Your task to perform on an android device: Open network settings Image 0: 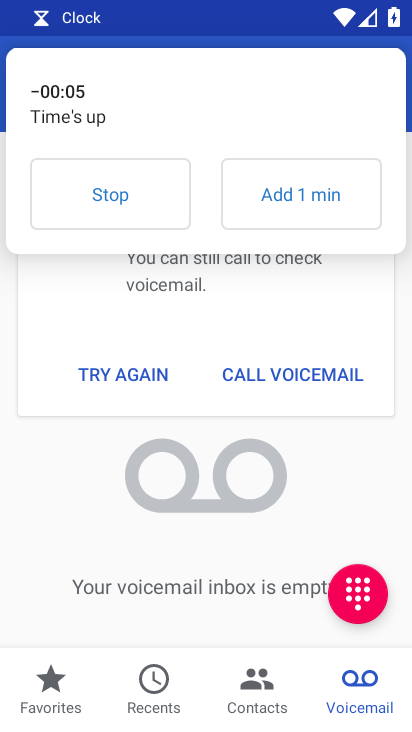
Step 0: press home button
Your task to perform on an android device: Open network settings Image 1: 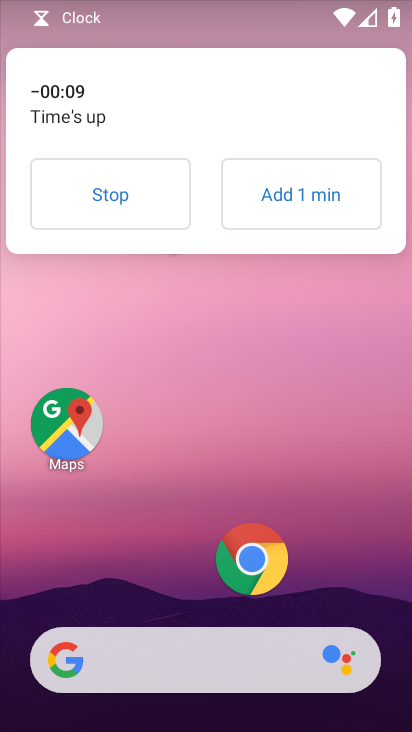
Step 1: drag from (194, 612) to (188, 159)
Your task to perform on an android device: Open network settings Image 2: 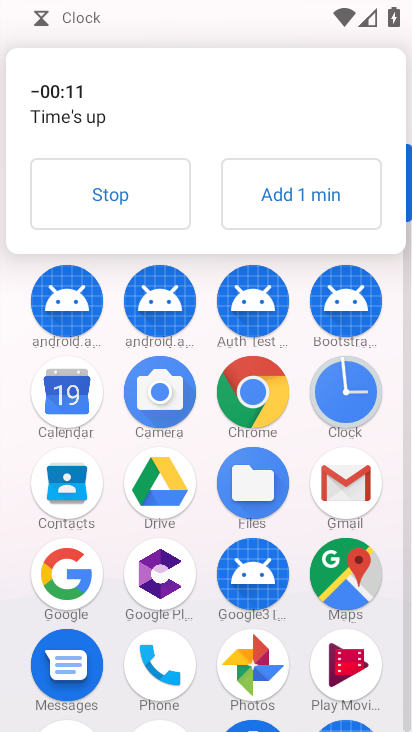
Step 2: click (155, 212)
Your task to perform on an android device: Open network settings Image 3: 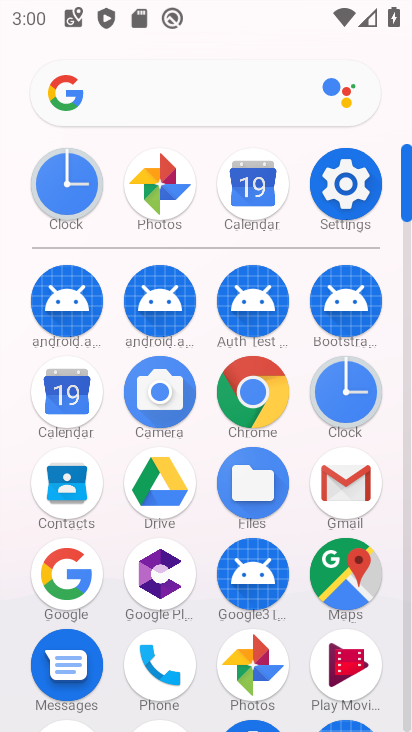
Step 3: click (323, 201)
Your task to perform on an android device: Open network settings Image 4: 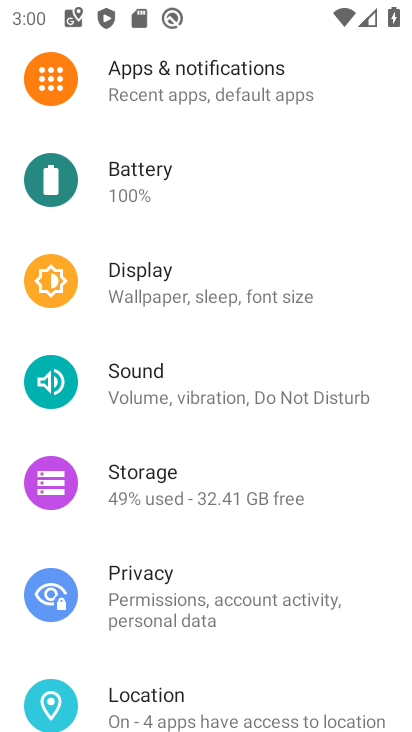
Step 4: drag from (229, 136) to (273, 535)
Your task to perform on an android device: Open network settings Image 5: 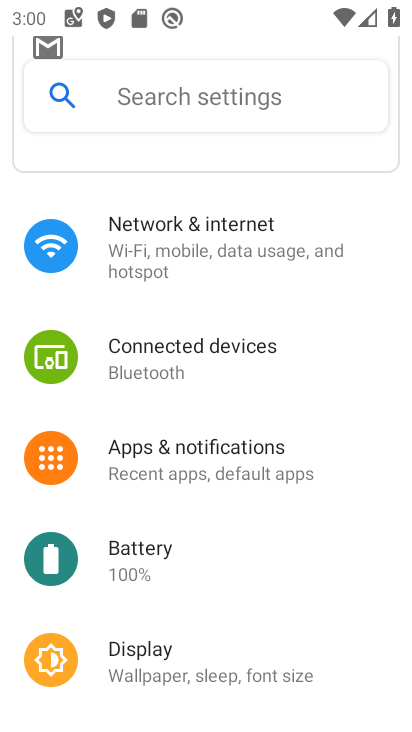
Step 5: click (230, 261)
Your task to perform on an android device: Open network settings Image 6: 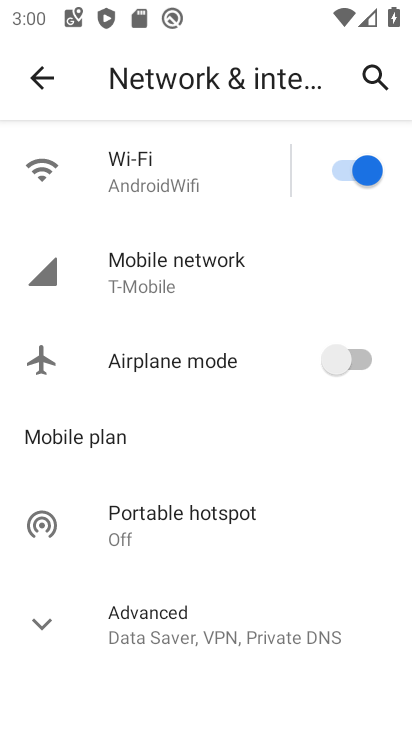
Step 6: click (180, 267)
Your task to perform on an android device: Open network settings Image 7: 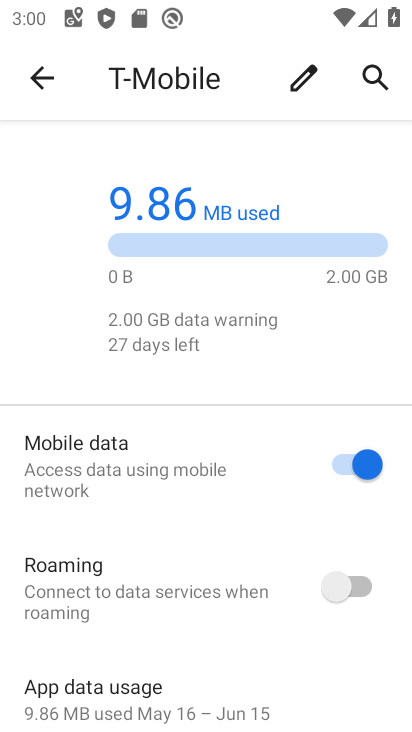
Step 7: task complete